Your task to perform on an android device: Open Android settings Image 0: 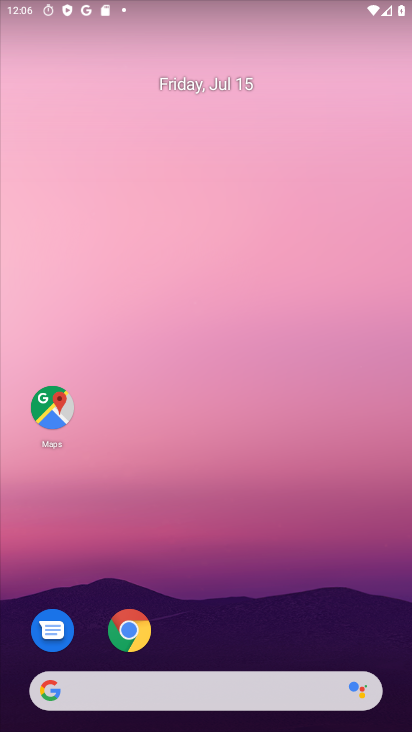
Step 0: drag from (201, 546) to (310, 205)
Your task to perform on an android device: Open Android settings Image 1: 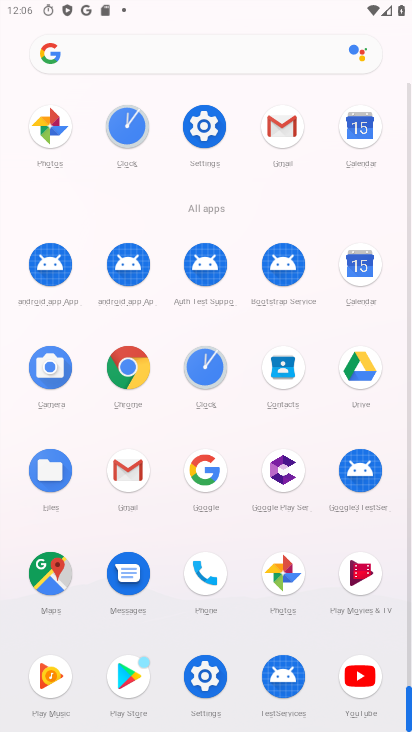
Step 1: click (213, 671)
Your task to perform on an android device: Open Android settings Image 2: 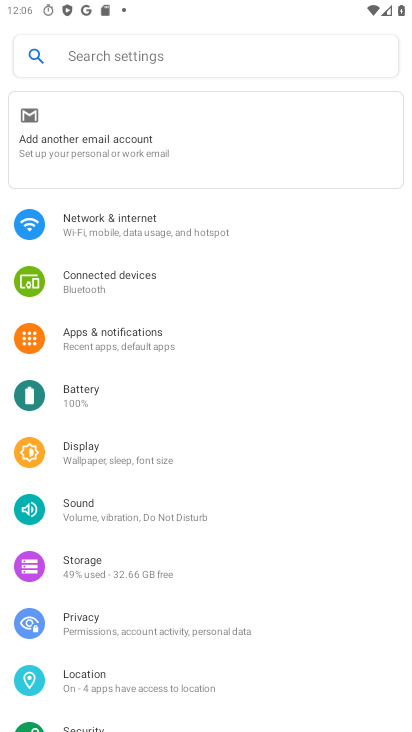
Step 2: drag from (203, 632) to (288, 65)
Your task to perform on an android device: Open Android settings Image 3: 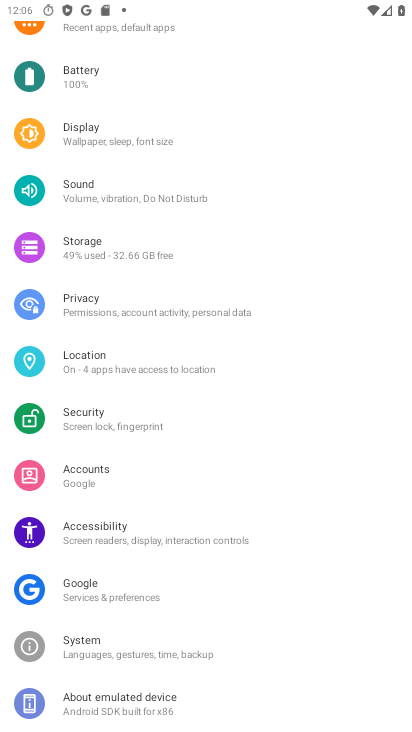
Step 3: drag from (172, 590) to (259, 135)
Your task to perform on an android device: Open Android settings Image 4: 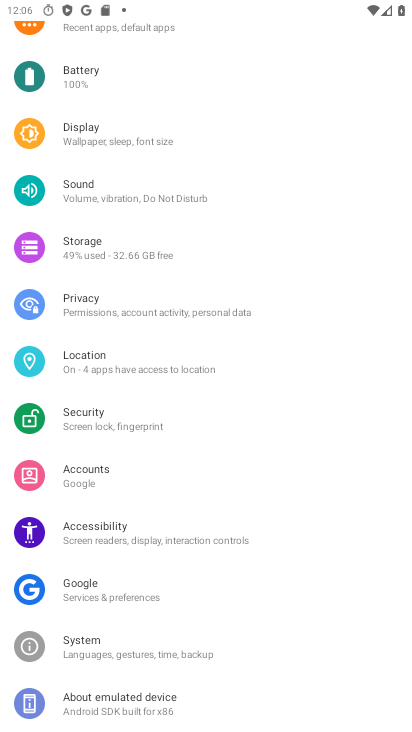
Step 4: click (116, 702)
Your task to perform on an android device: Open Android settings Image 5: 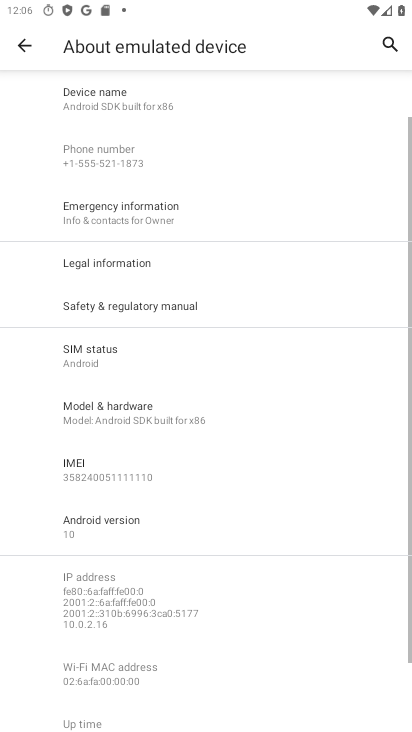
Step 5: task complete